Your task to perform on an android device: Go to Wikipedia Image 0: 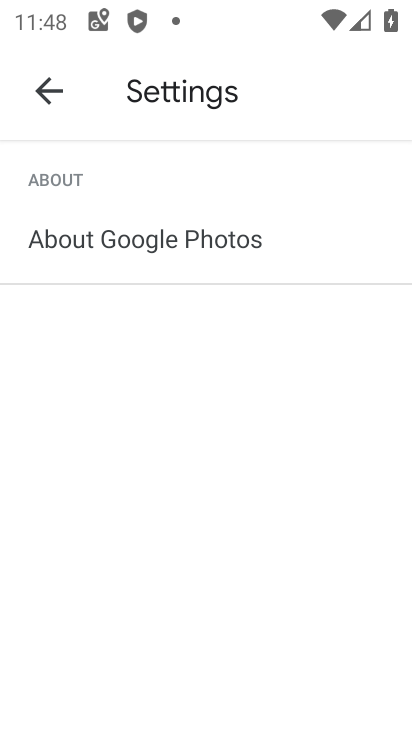
Step 0: press home button
Your task to perform on an android device: Go to Wikipedia Image 1: 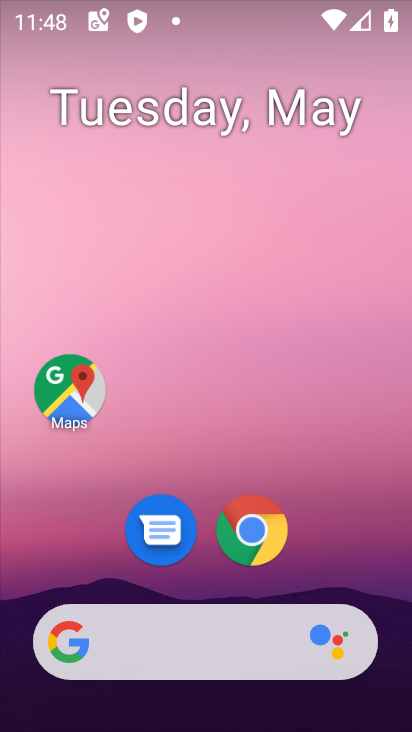
Step 1: click (258, 530)
Your task to perform on an android device: Go to Wikipedia Image 2: 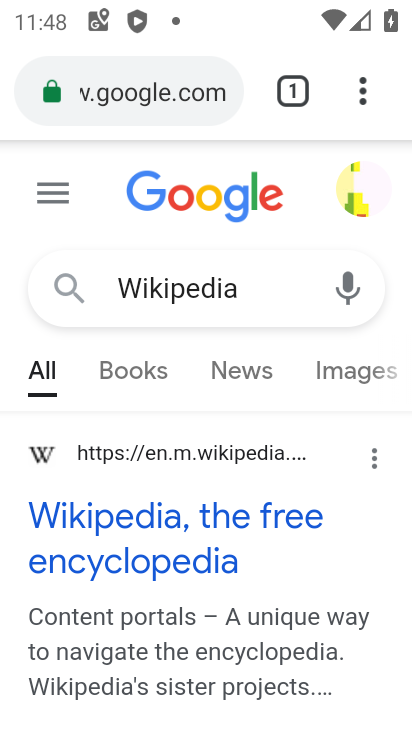
Step 2: click (133, 103)
Your task to perform on an android device: Go to Wikipedia Image 3: 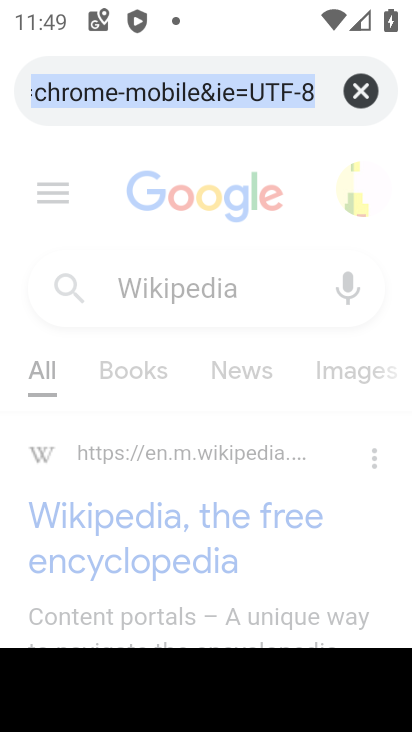
Step 3: type "Wikipedia"
Your task to perform on an android device: Go to Wikipedia Image 4: 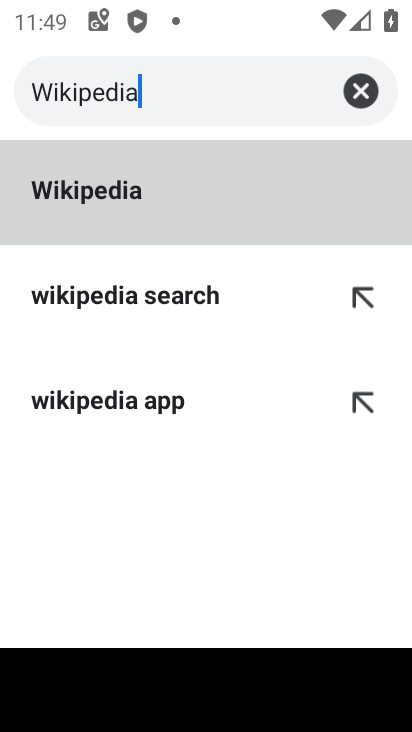
Step 4: click (218, 196)
Your task to perform on an android device: Go to Wikipedia Image 5: 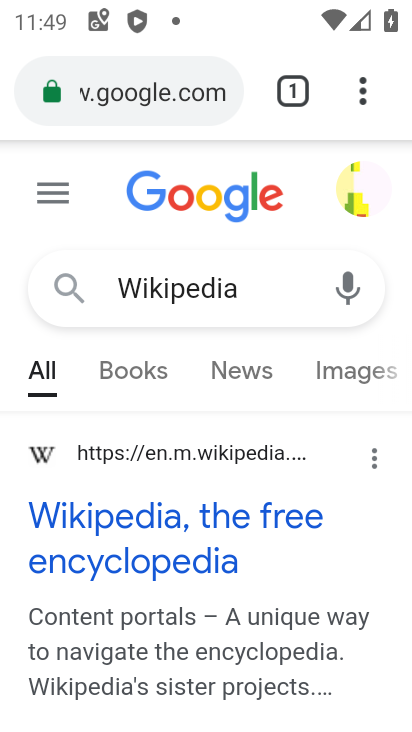
Step 5: task complete